Your task to perform on an android device: open chrome and create a bookmark for the current page Image 0: 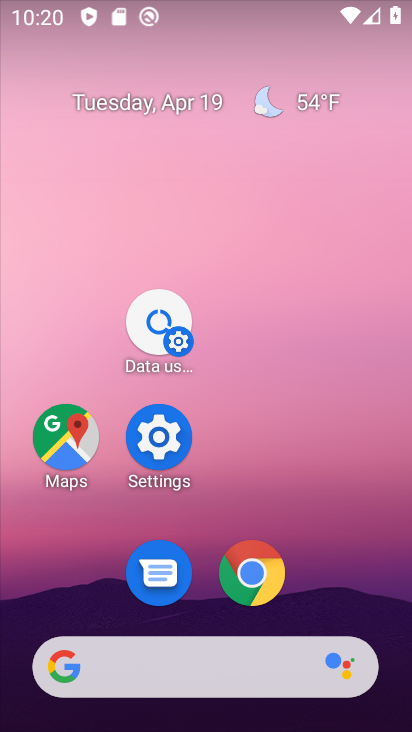
Step 0: click (253, 572)
Your task to perform on an android device: open chrome and create a bookmark for the current page Image 1: 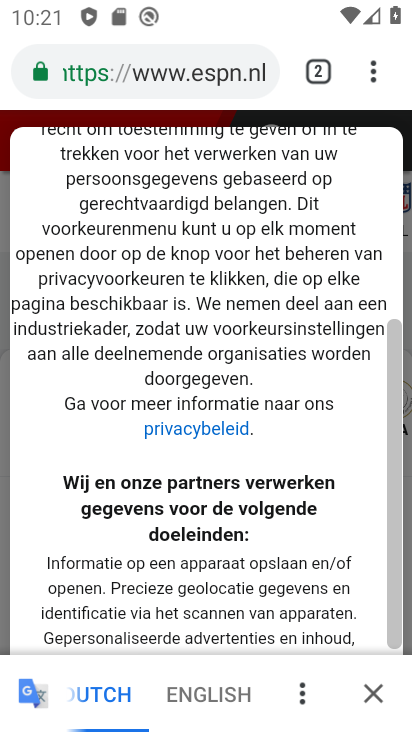
Step 1: click (374, 70)
Your task to perform on an android device: open chrome and create a bookmark for the current page Image 2: 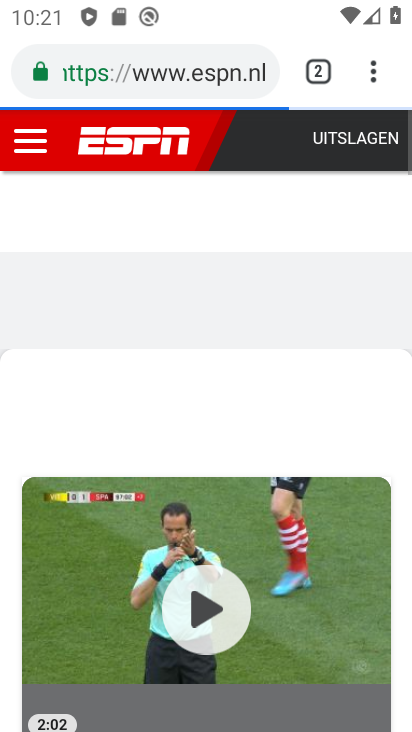
Step 2: click (373, 73)
Your task to perform on an android device: open chrome and create a bookmark for the current page Image 3: 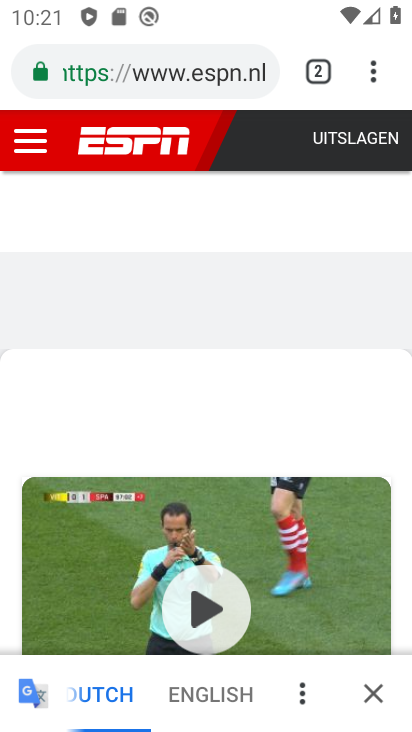
Step 3: click (373, 73)
Your task to perform on an android device: open chrome and create a bookmark for the current page Image 4: 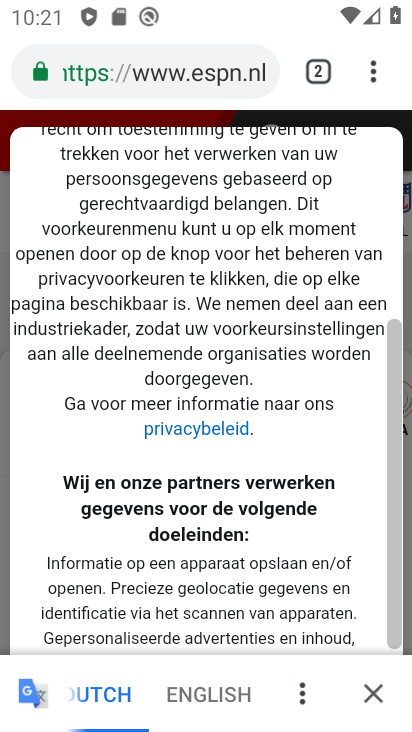
Step 4: click (370, 73)
Your task to perform on an android device: open chrome and create a bookmark for the current page Image 5: 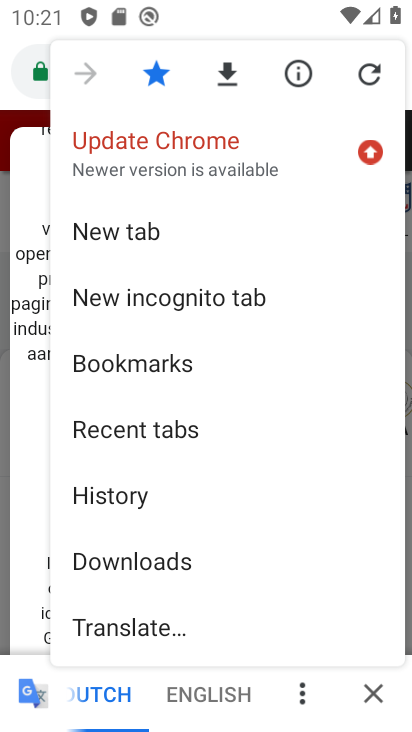
Step 5: click (106, 226)
Your task to perform on an android device: open chrome and create a bookmark for the current page Image 6: 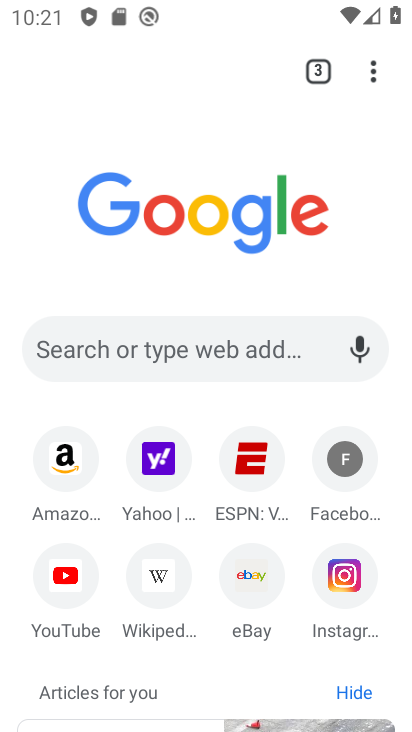
Step 6: click (148, 213)
Your task to perform on an android device: open chrome and create a bookmark for the current page Image 7: 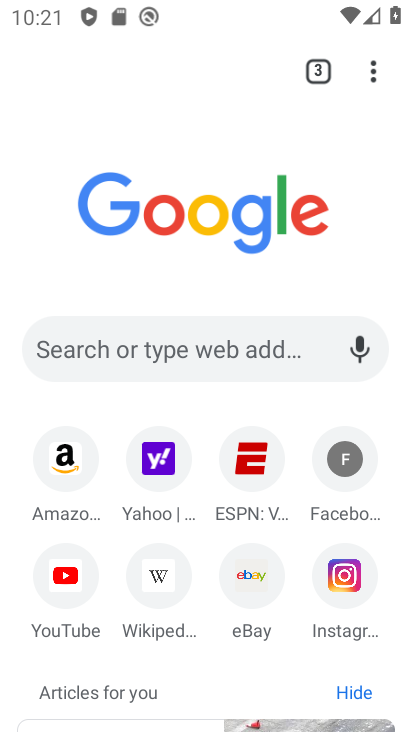
Step 7: click (131, 351)
Your task to perform on an android device: open chrome and create a bookmark for the current page Image 8: 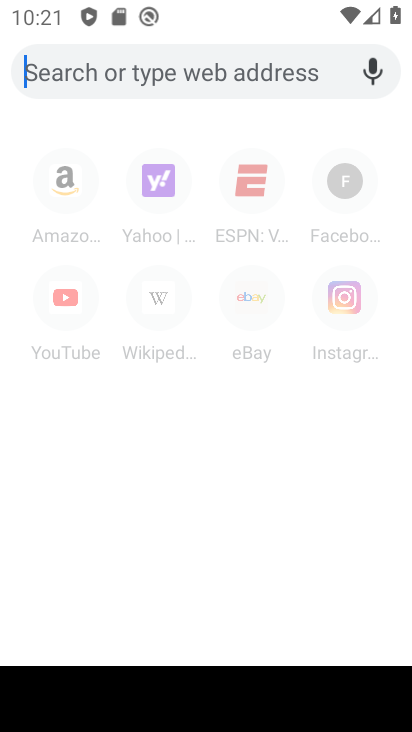
Step 8: type "snapdeal"
Your task to perform on an android device: open chrome and create a bookmark for the current page Image 9: 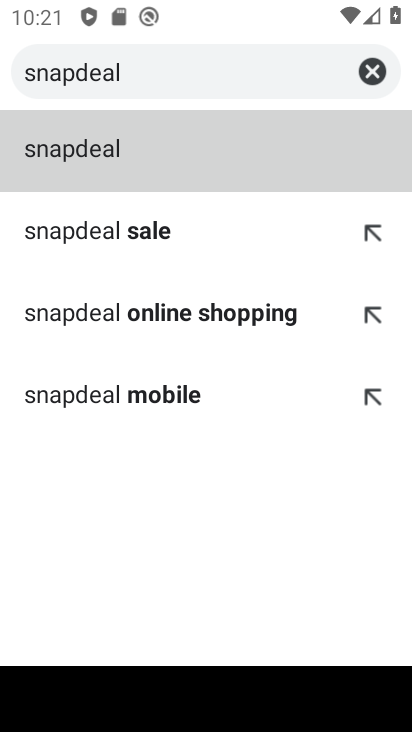
Step 9: click (75, 154)
Your task to perform on an android device: open chrome and create a bookmark for the current page Image 10: 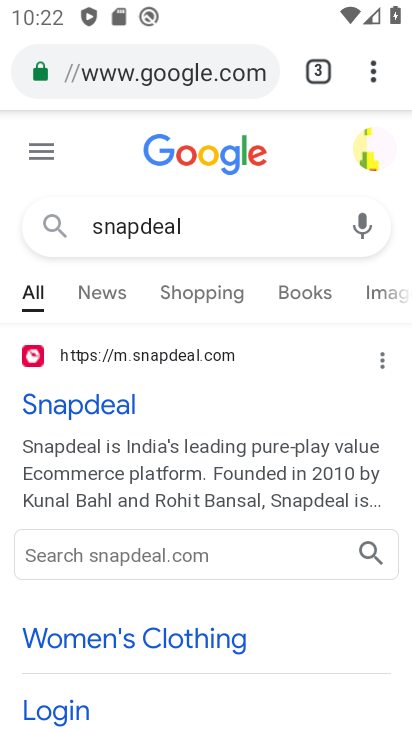
Step 10: click (84, 412)
Your task to perform on an android device: open chrome and create a bookmark for the current page Image 11: 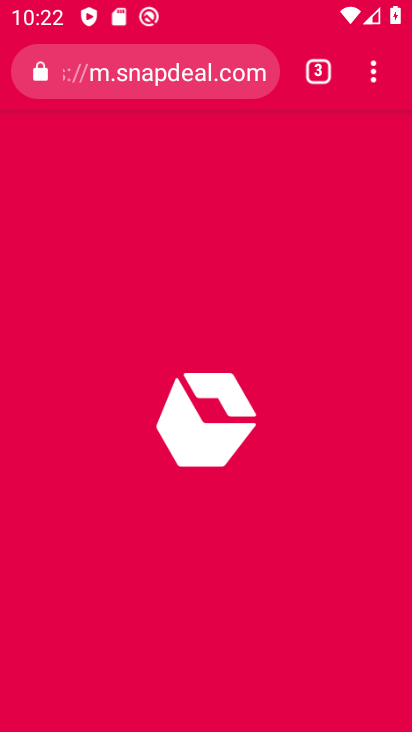
Step 11: click (375, 66)
Your task to perform on an android device: open chrome and create a bookmark for the current page Image 12: 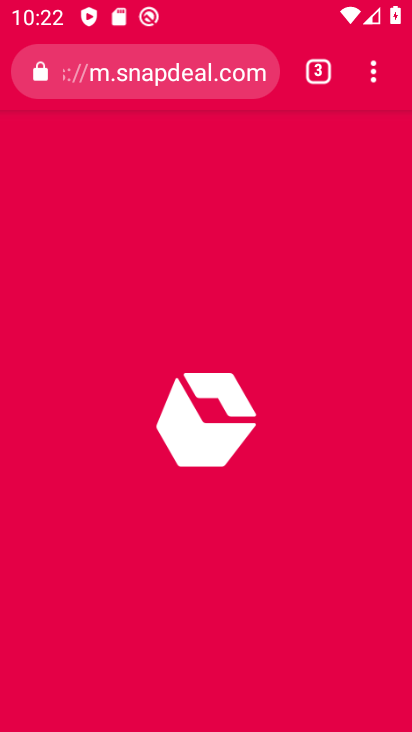
Step 12: click (375, 66)
Your task to perform on an android device: open chrome and create a bookmark for the current page Image 13: 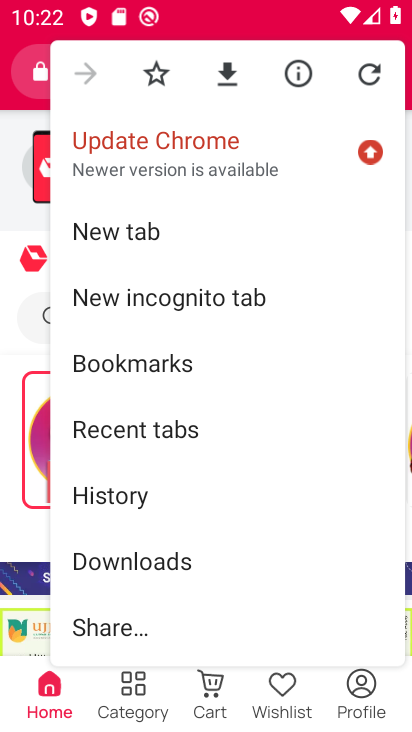
Step 13: click (161, 72)
Your task to perform on an android device: open chrome and create a bookmark for the current page Image 14: 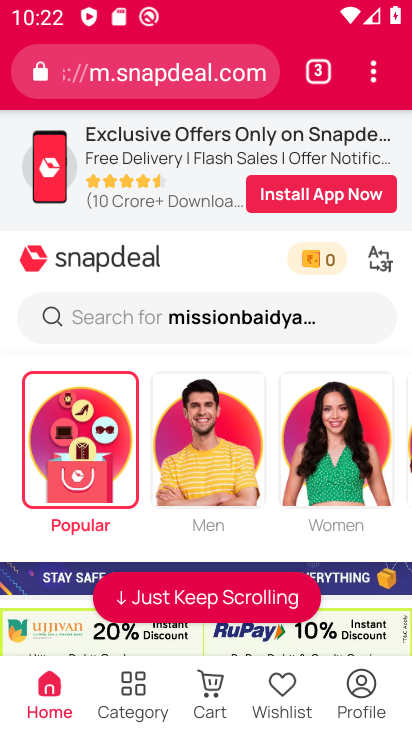
Step 14: task complete